Your task to perform on an android device: open the mobile data screen to see how much data has been used Image 0: 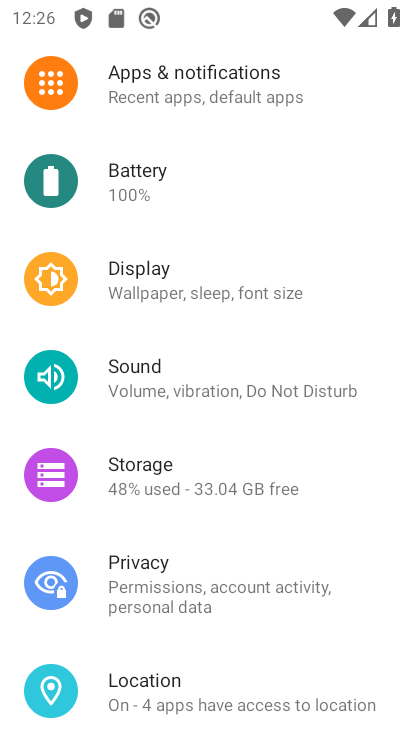
Step 0: drag from (237, 333) to (225, 585)
Your task to perform on an android device: open the mobile data screen to see how much data has been used Image 1: 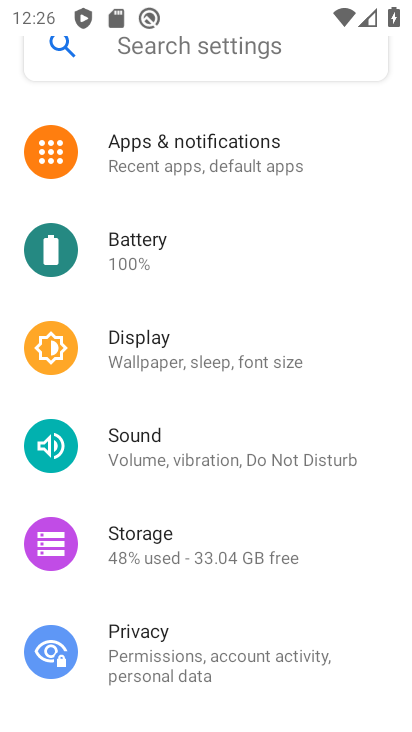
Step 1: drag from (172, 216) to (220, 568)
Your task to perform on an android device: open the mobile data screen to see how much data has been used Image 2: 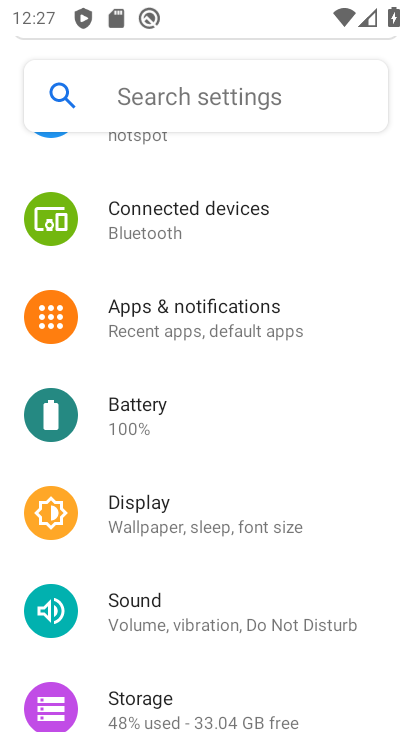
Step 2: drag from (200, 130) to (199, 673)
Your task to perform on an android device: open the mobile data screen to see how much data has been used Image 3: 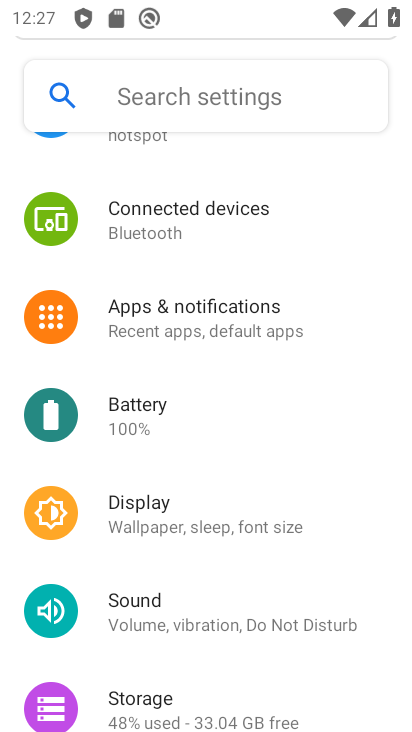
Step 3: drag from (205, 162) to (158, 652)
Your task to perform on an android device: open the mobile data screen to see how much data has been used Image 4: 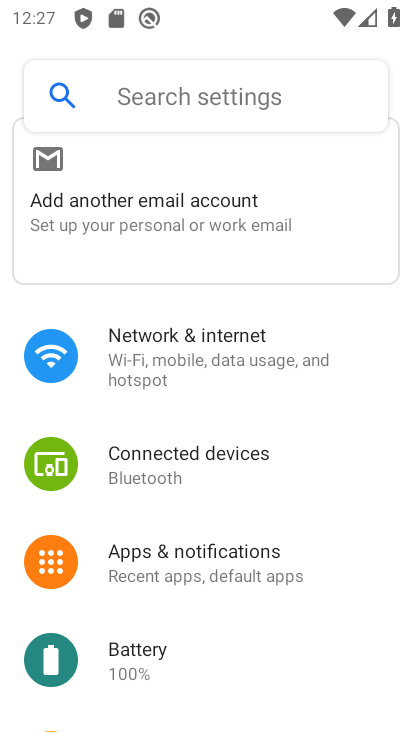
Step 4: click (181, 345)
Your task to perform on an android device: open the mobile data screen to see how much data has been used Image 5: 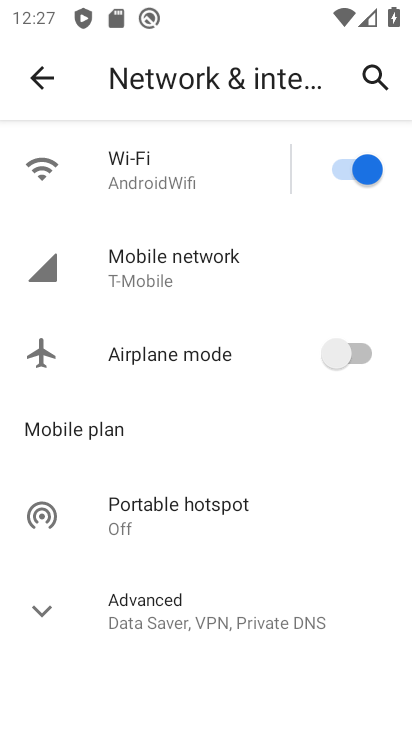
Step 5: click (143, 279)
Your task to perform on an android device: open the mobile data screen to see how much data has been used Image 6: 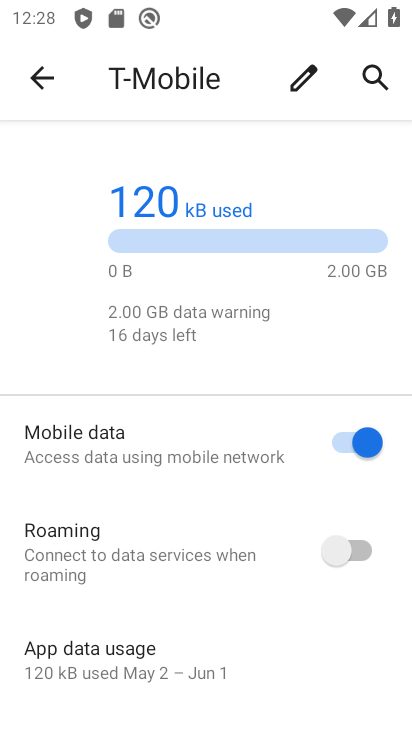
Step 6: task complete